Your task to perform on an android device: stop showing notifications on the lock screen Image 0: 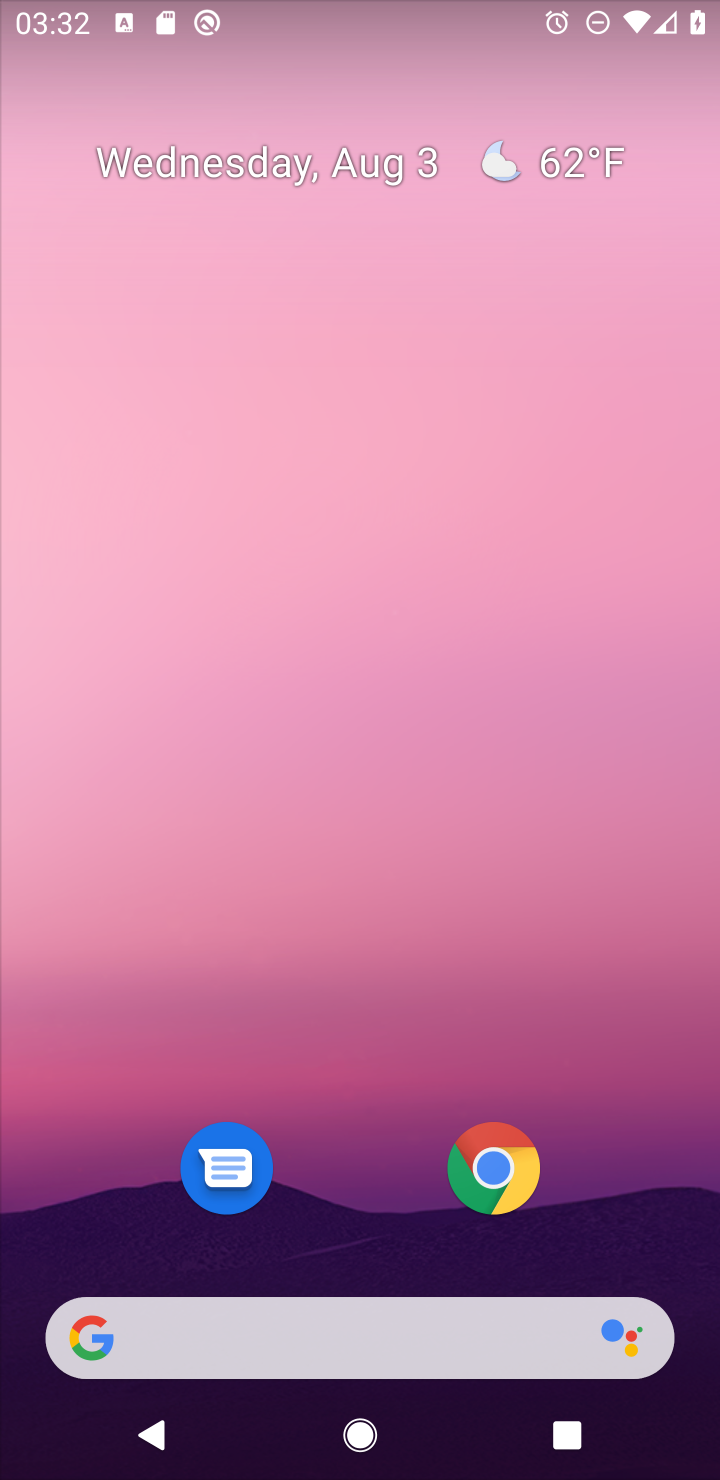
Step 0: drag from (680, 1270) to (622, 372)
Your task to perform on an android device: stop showing notifications on the lock screen Image 1: 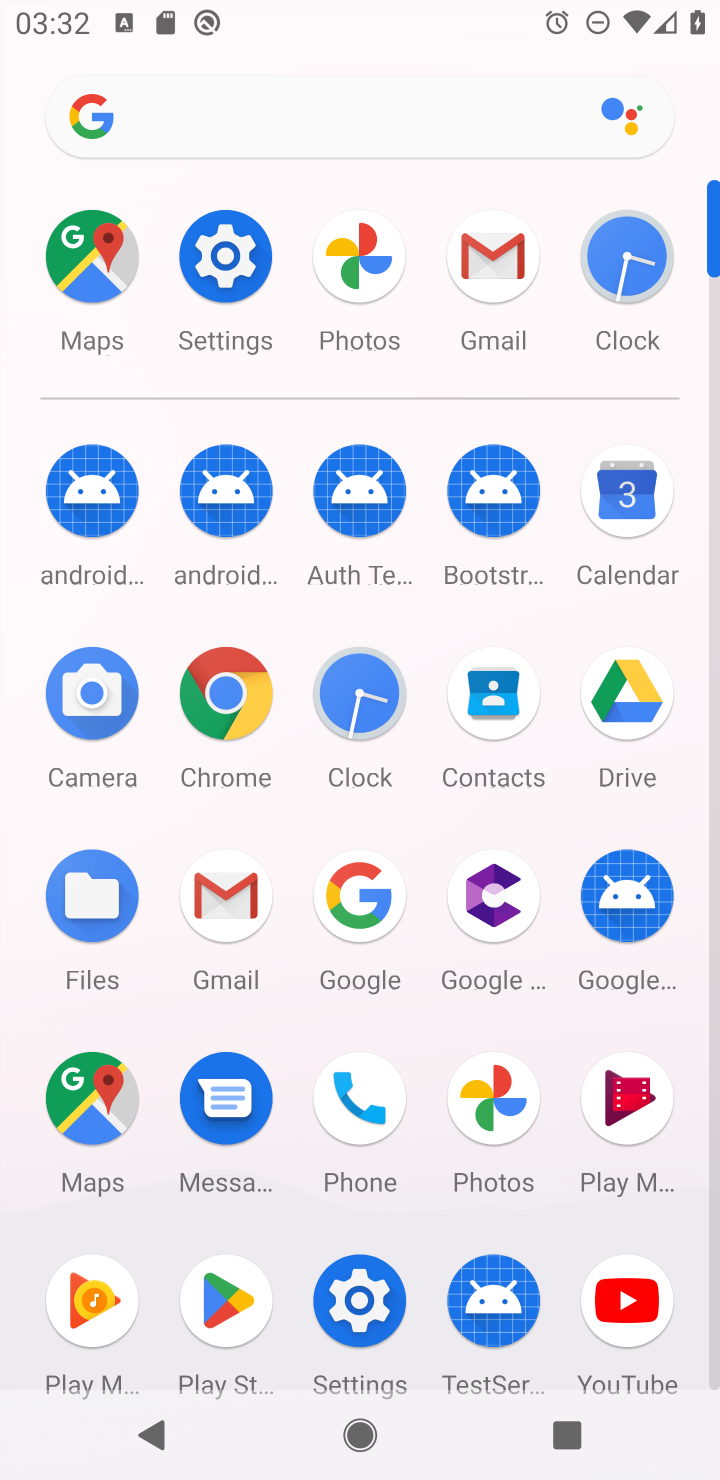
Step 1: click (350, 1304)
Your task to perform on an android device: stop showing notifications on the lock screen Image 2: 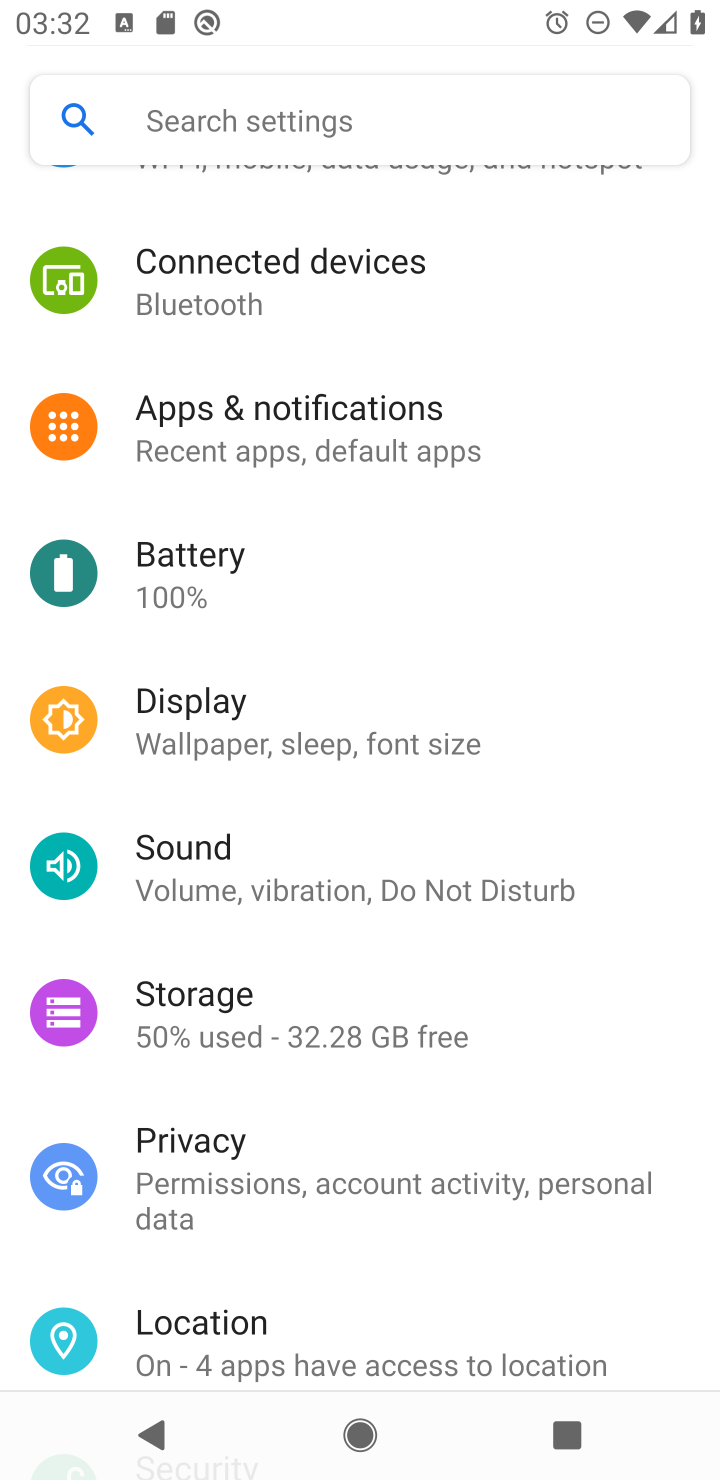
Step 2: drag from (610, 591) to (643, 1032)
Your task to perform on an android device: stop showing notifications on the lock screen Image 3: 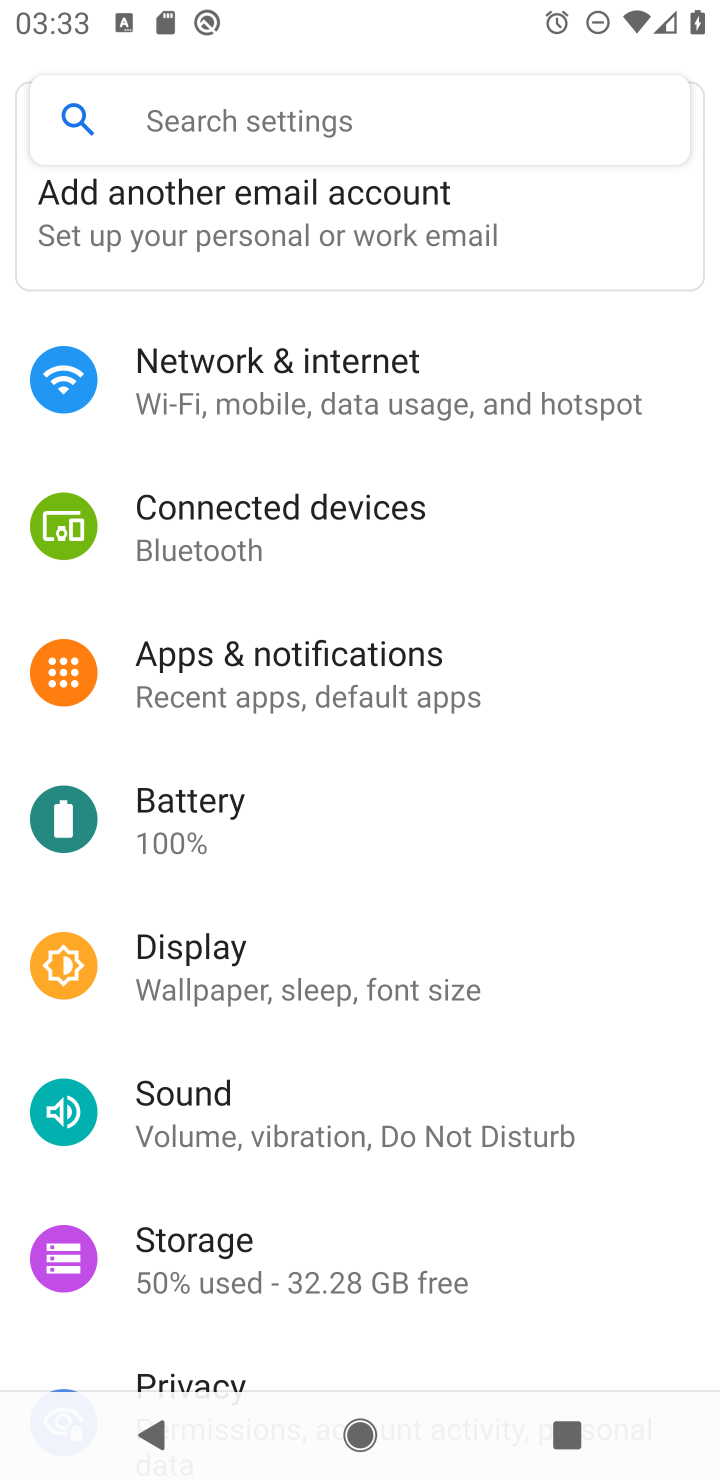
Step 3: click (289, 657)
Your task to perform on an android device: stop showing notifications on the lock screen Image 4: 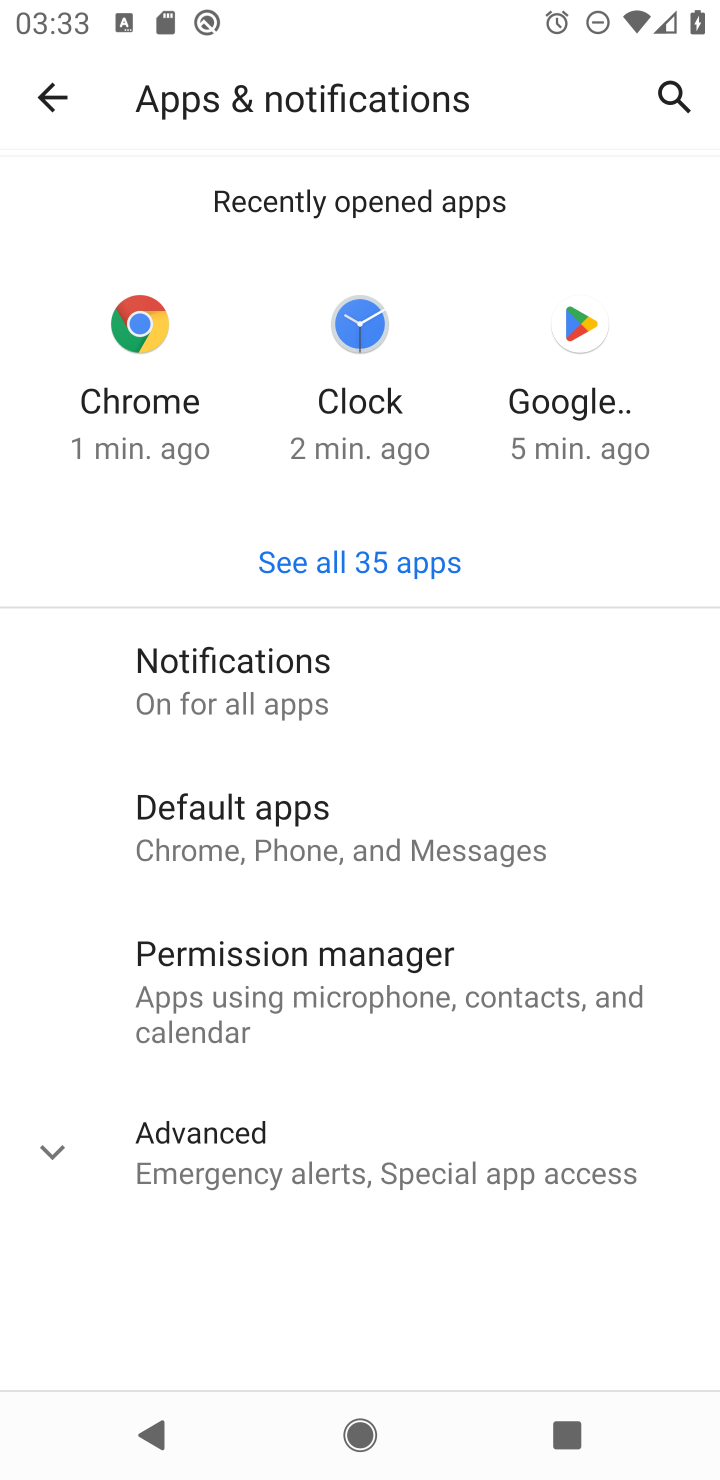
Step 4: click (218, 659)
Your task to perform on an android device: stop showing notifications on the lock screen Image 5: 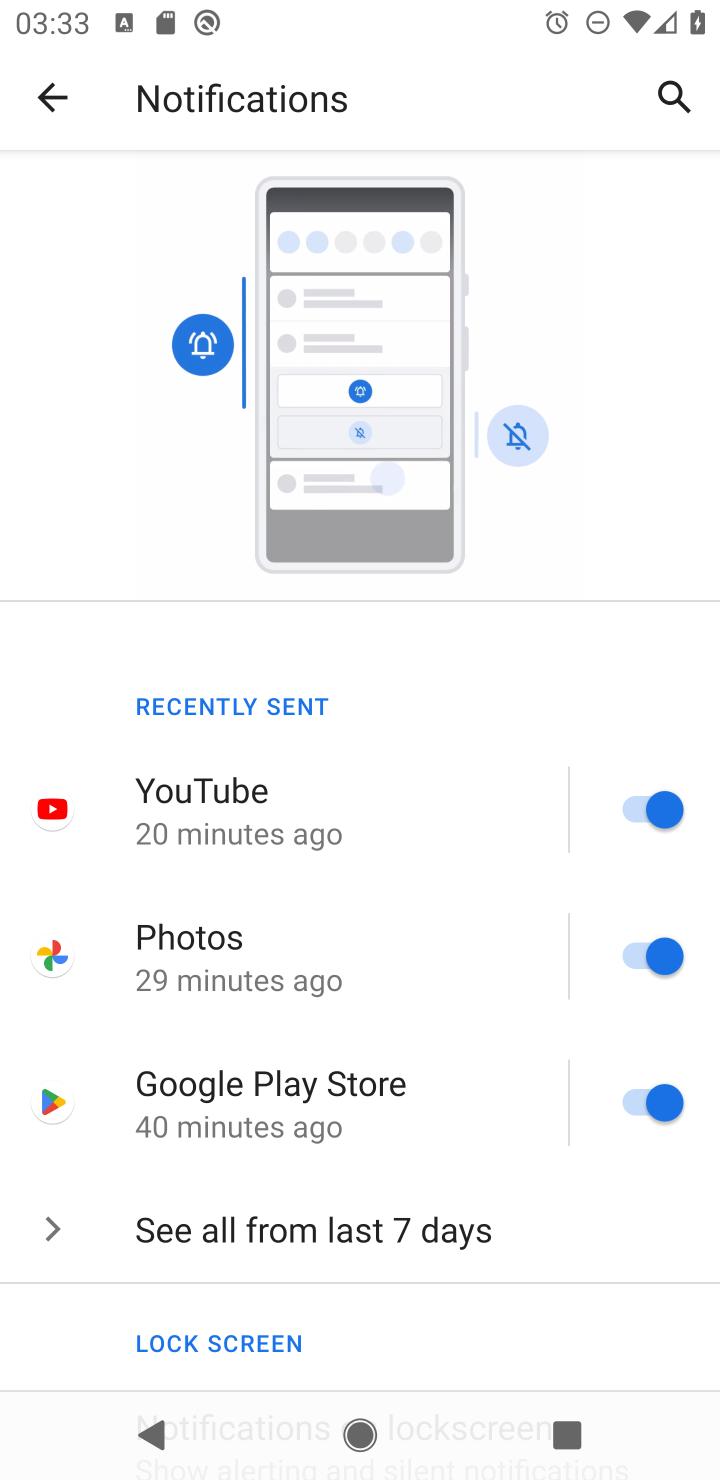
Step 5: drag from (527, 1302) to (514, 663)
Your task to perform on an android device: stop showing notifications on the lock screen Image 6: 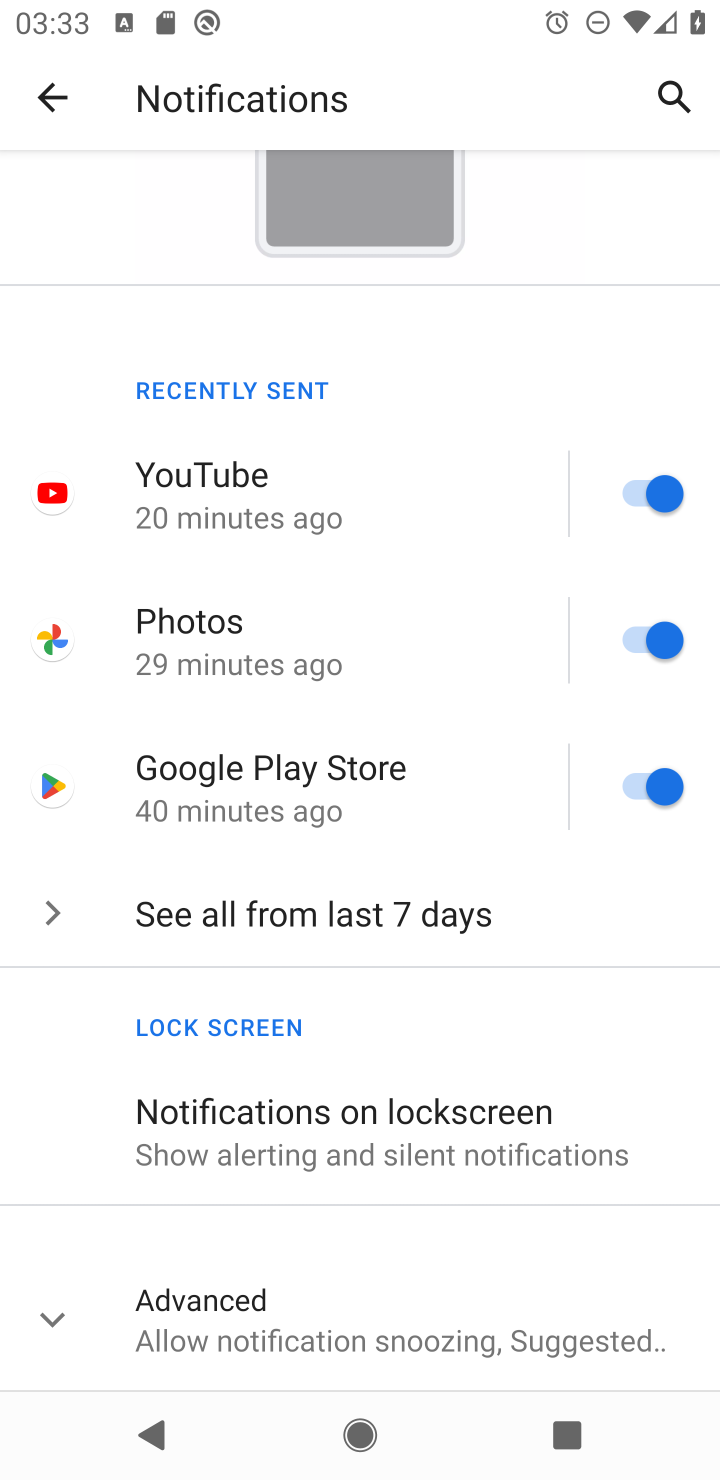
Step 6: click (275, 1120)
Your task to perform on an android device: stop showing notifications on the lock screen Image 7: 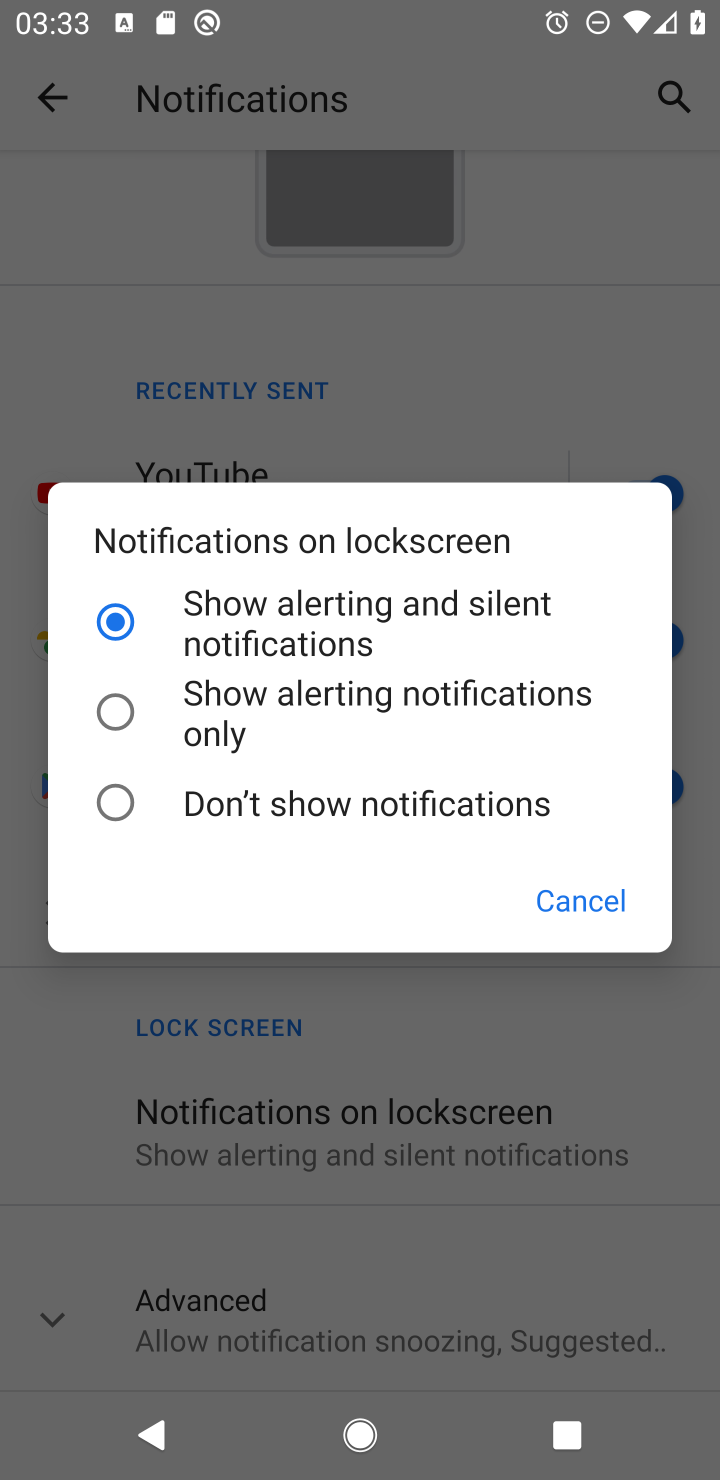
Step 7: click (115, 810)
Your task to perform on an android device: stop showing notifications on the lock screen Image 8: 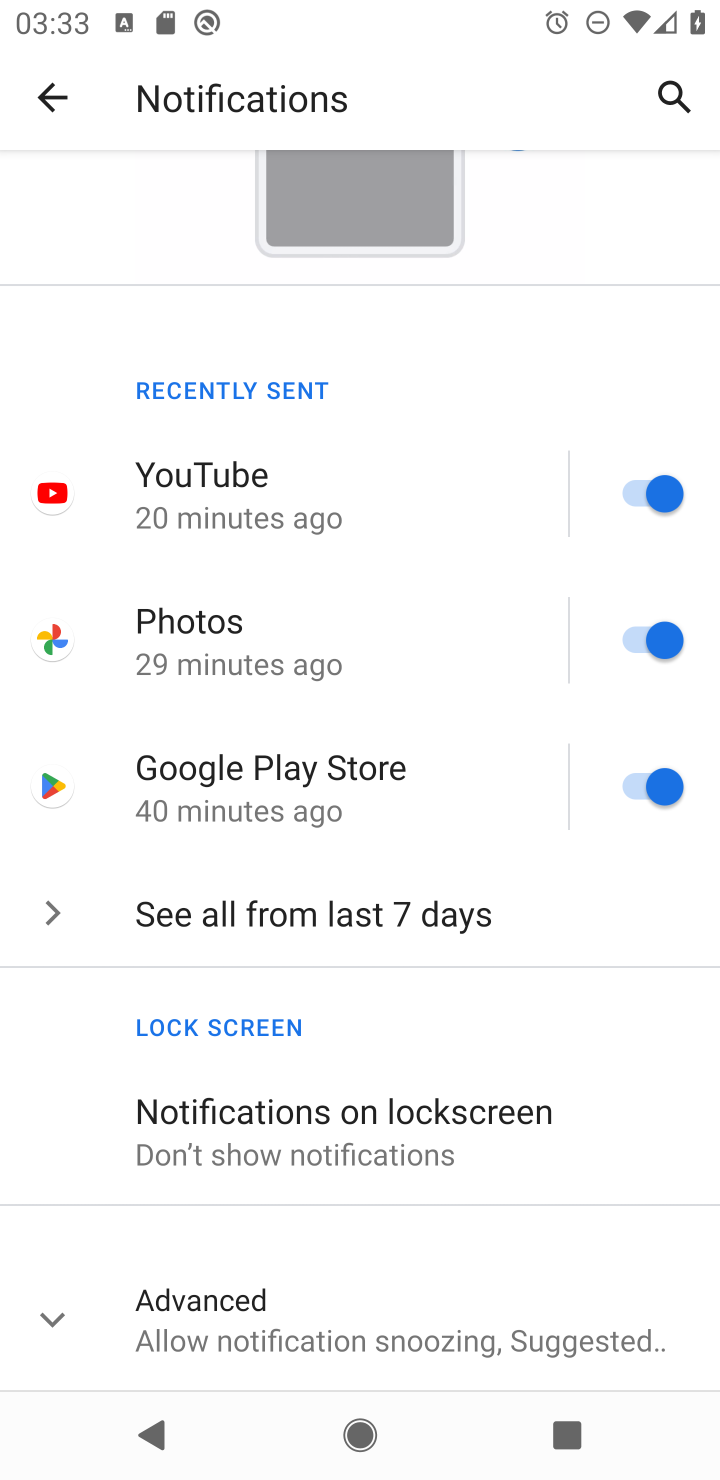
Step 8: task complete